Your task to perform on an android device: open app "Viber Messenger" Image 0: 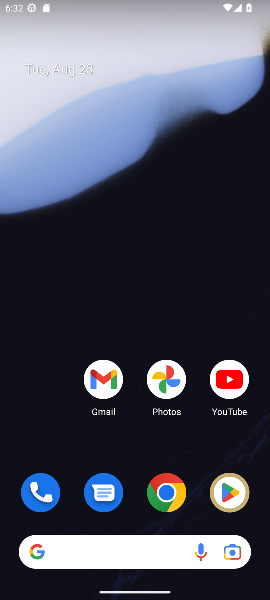
Step 0: drag from (57, 428) to (85, 44)
Your task to perform on an android device: open app "Viber Messenger" Image 1: 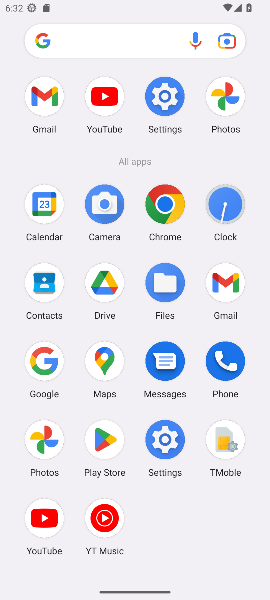
Step 1: click (99, 442)
Your task to perform on an android device: open app "Viber Messenger" Image 2: 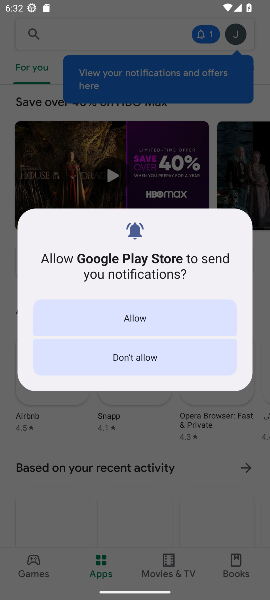
Step 2: click (148, 355)
Your task to perform on an android device: open app "Viber Messenger" Image 3: 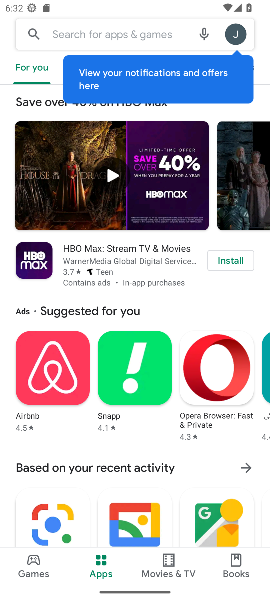
Step 3: click (64, 32)
Your task to perform on an android device: open app "Viber Messenger" Image 4: 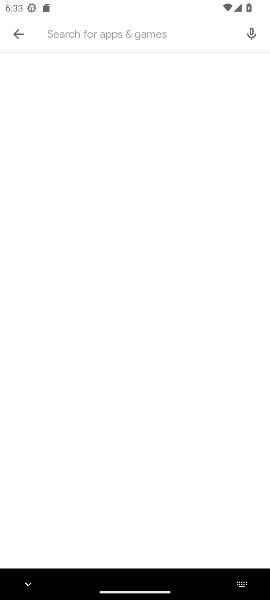
Step 4: type "Viber Messenger"
Your task to perform on an android device: open app "Viber Messenger" Image 5: 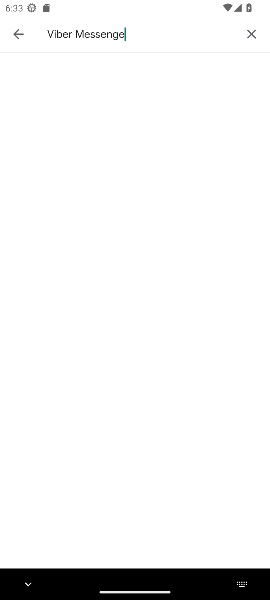
Step 5: press enter
Your task to perform on an android device: open app "Viber Messenger" Image 6: 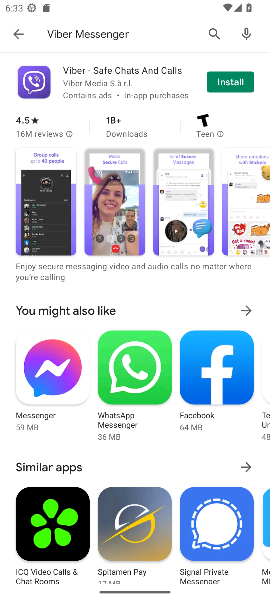
Step 6: task complete